Your task to perform on an android device: turn on sleep mode Image 0: 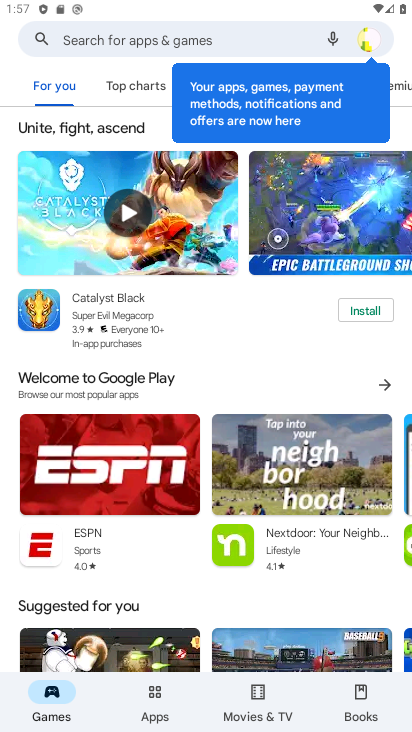
Step 0: press home button
Your task to perform on an android device: turn on sleep mode Image 1: 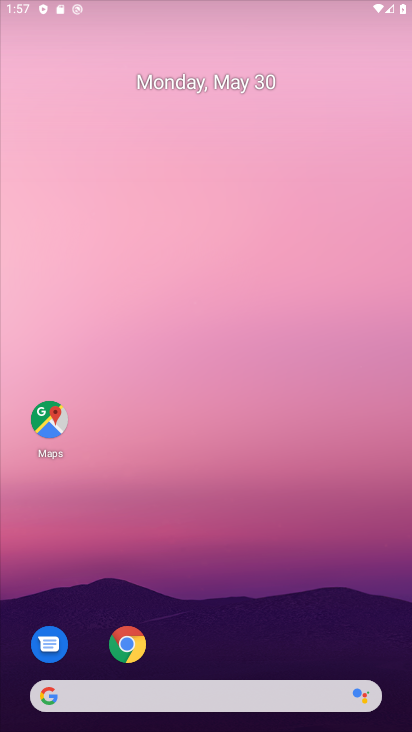
Step 1: drag from (264, 560) to (212, 257)
Your task to perform on an android device: turn on sleep mode Image 2: 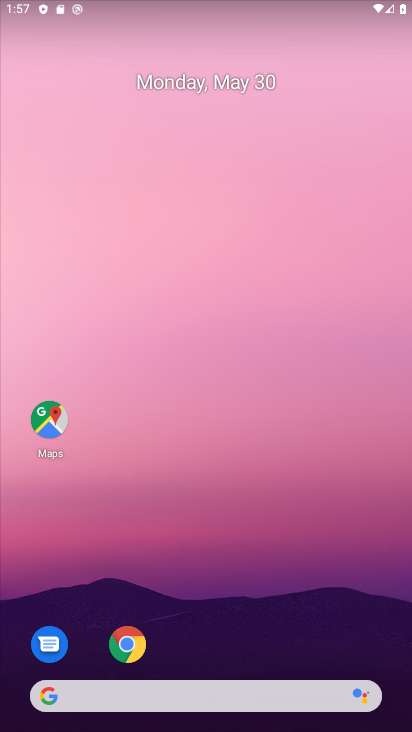
Step 2: drag from (289, 573) to (211, 130)
Your task to perform on an android device: turn on sleep mode Image 3: 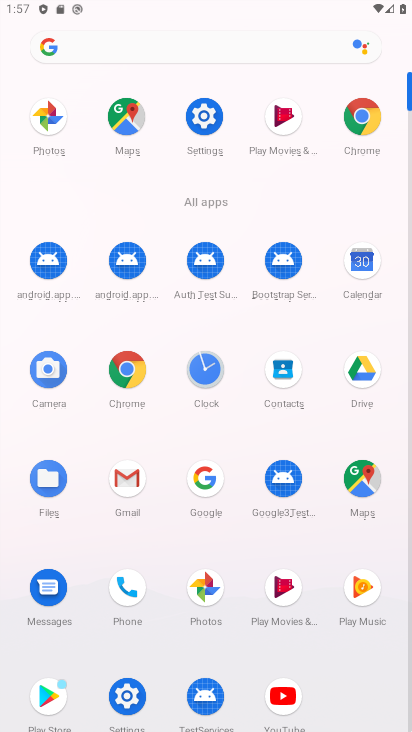
Step 3: click (205, 119)
Your task to perform on an android device: turn on sleep mode Image 4: 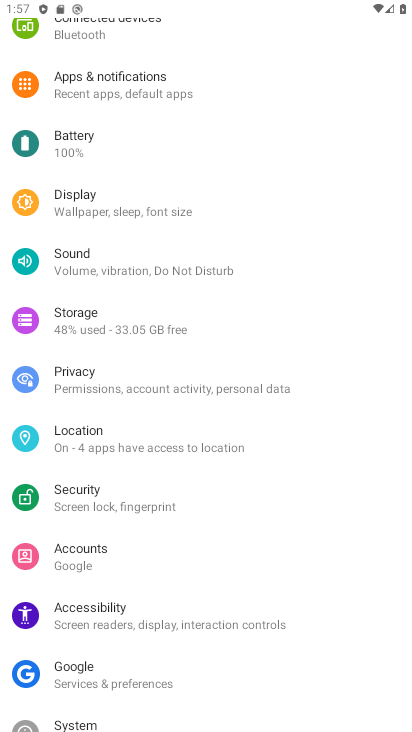
Step 4: click (85, 193)
Your task to perform on an android device: turn on sleep mode Image 5: 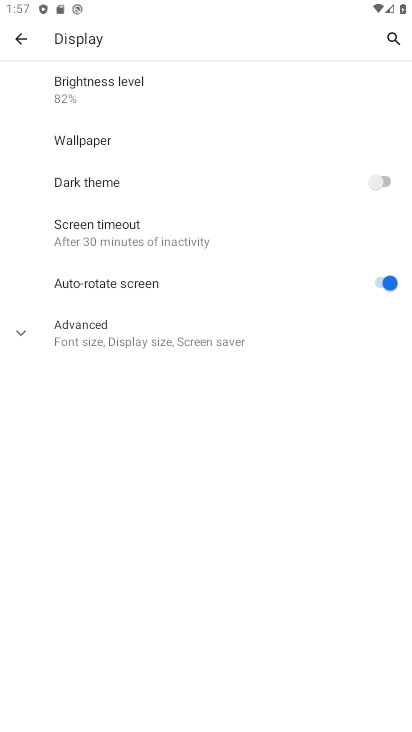
Step 5: click (36, 338)
Your task to perform on an android device: turn on sleep mode Image 6: 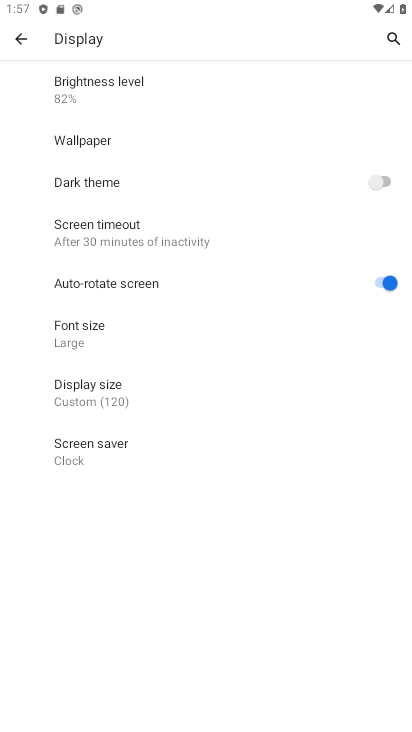
Step 6: task complete